Your task to perform on an android device: Clear the cart on costco. Search for razer blackwidow on costco, select the first entry, and add it to the cart. Image 0: 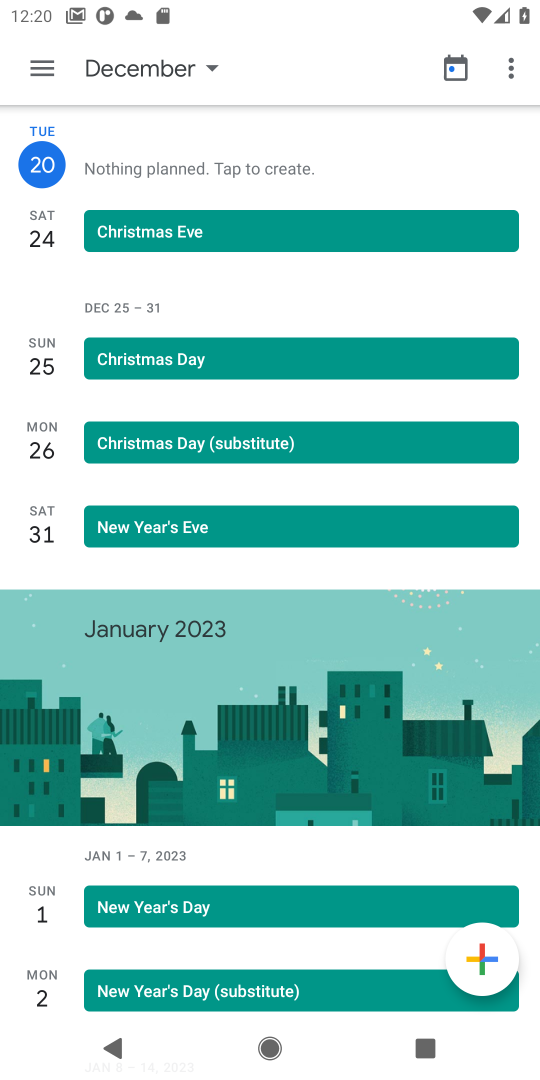
Step 0: press home button
Your task to perform on an android device: Clear the cart on costco. Search for razer blackwidow on costco, select the first entry, and add it to the cart. Image 1: 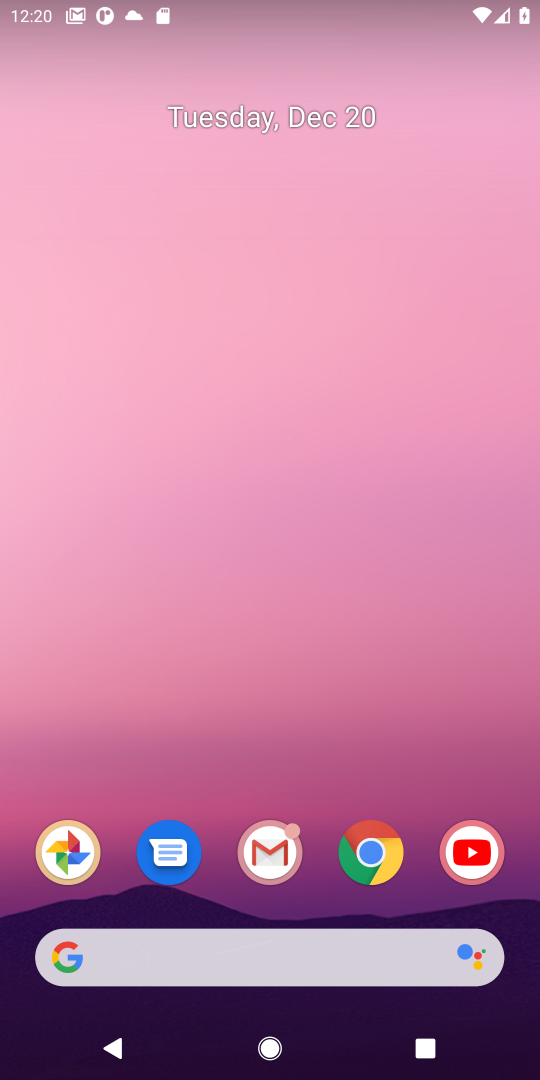
Step 1: click (378, 862)
Your task to perform on an android device: Clear the cart on costco. Search for razer blackwidow on costco, select the first entry, and add it to the cart. Image 2: 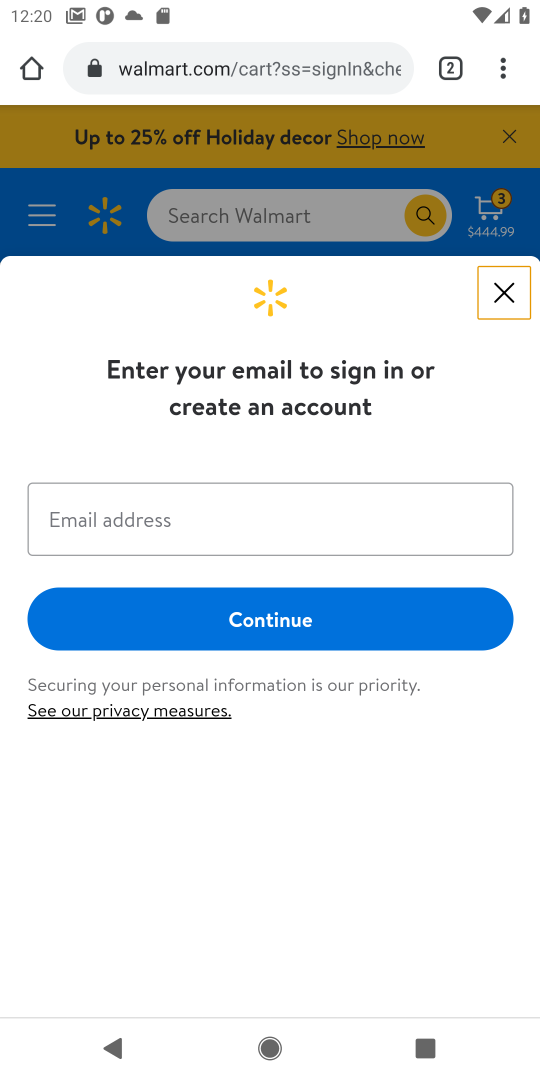
Step 2: click (238, 79)
Your task to perform on an android device: Clear the cart on costco. Search for razer blackwidow on costco, select the first entry, and add it to the cart. Image 3: 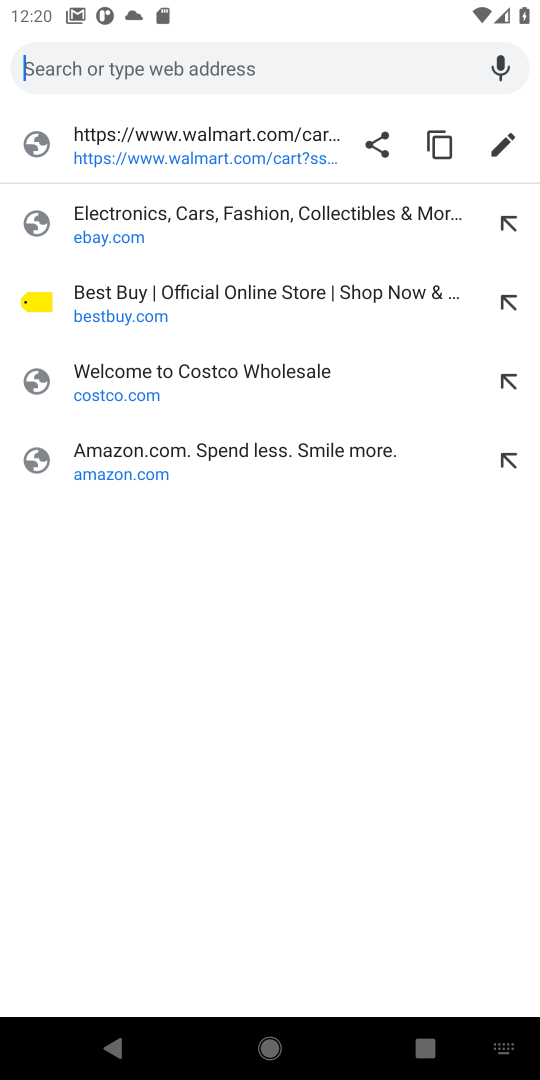
Step 3: click (127, 384)
Your task to perform on an android device: Clear the cart on costco. Search for razer blackwidow on costco, select the first entry, and add it to the cart. Image 4: 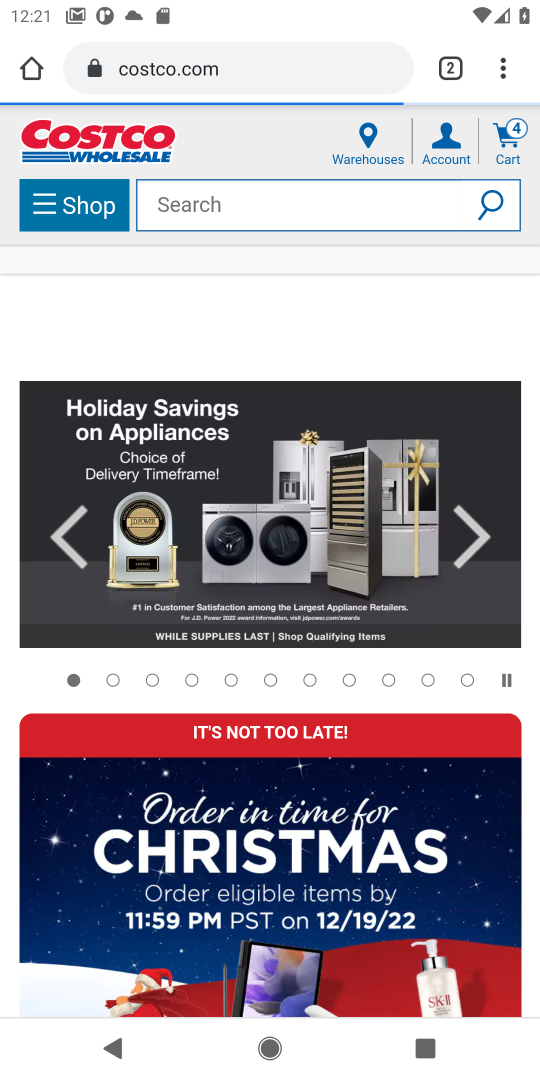
Step 4: click (511, 146)
Your task to perform on an android device: Clear the cart on costco. Search for razer blackwidow on costco, select the first entry, and add it to the cart. Image 5: 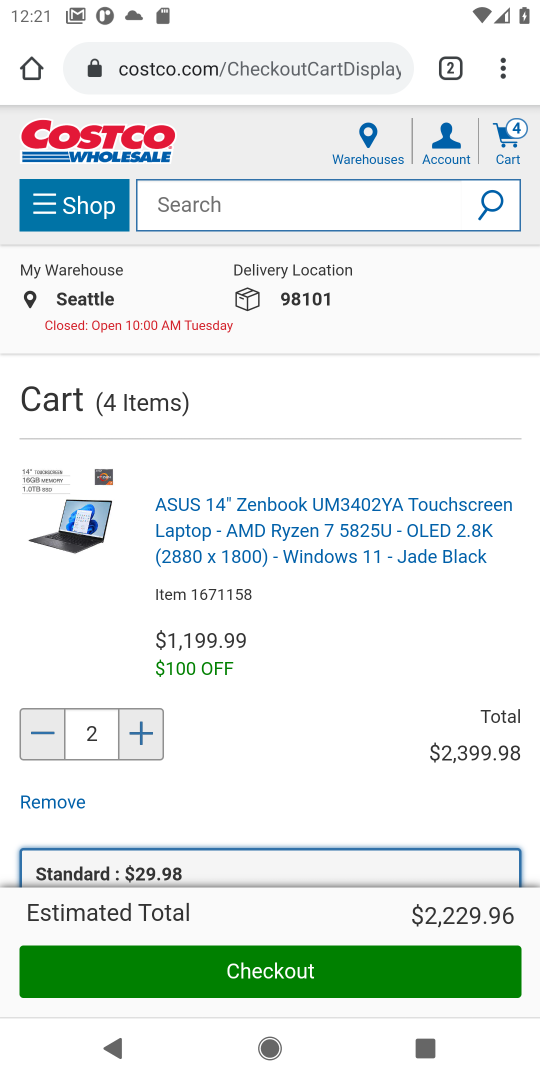
Step 5: drag from (233, 742) to (255, 502)
Your task to perform on an android device: Clear the cart on costco. Search for razer blackwidow on costco, select the first entry, and add it to the cart. Image 6: 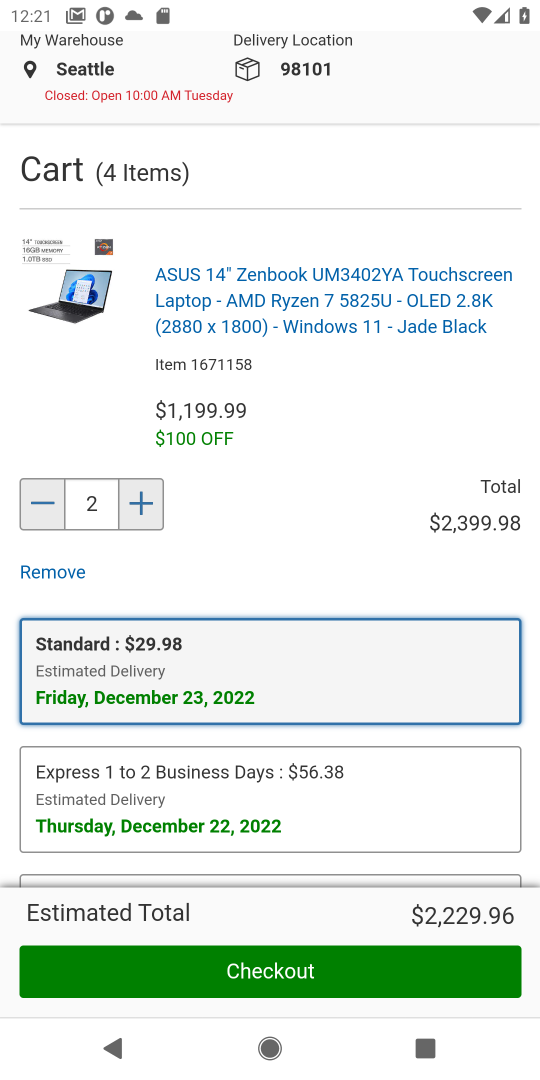
Step 6: drag from (319, 697) to (334, 448)
Your task to perform on an android device: Clear the cart on costco. Search for razer blackwidow on costco, select the first entry, and add it to the cart. Image 7: 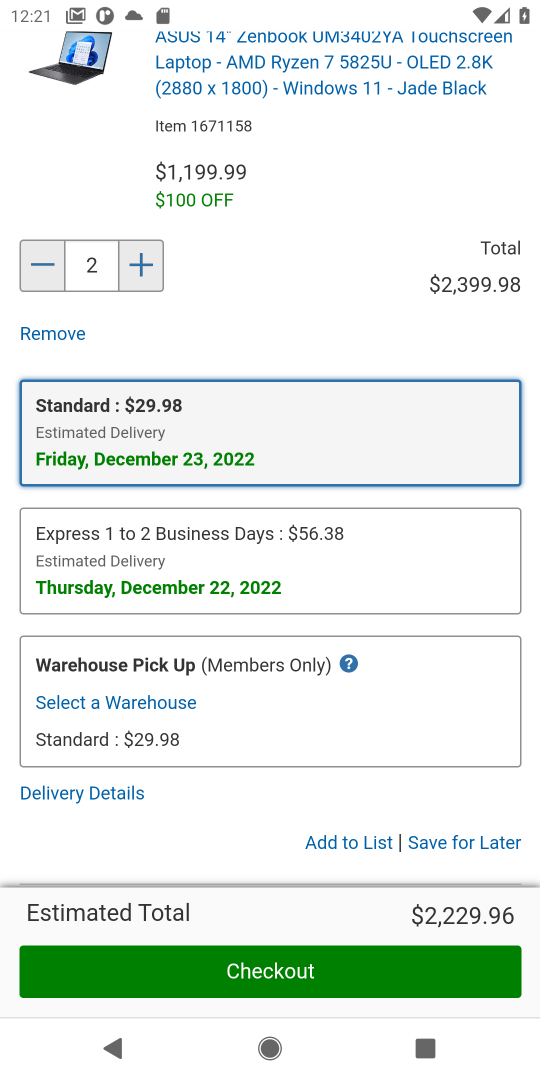
Step 7: click (456, 846)
Your task to perform on an android device: Clear the cart on costco. Search for razer blackwidow on costco, select the first entry, and add it to the cart. Image 8: 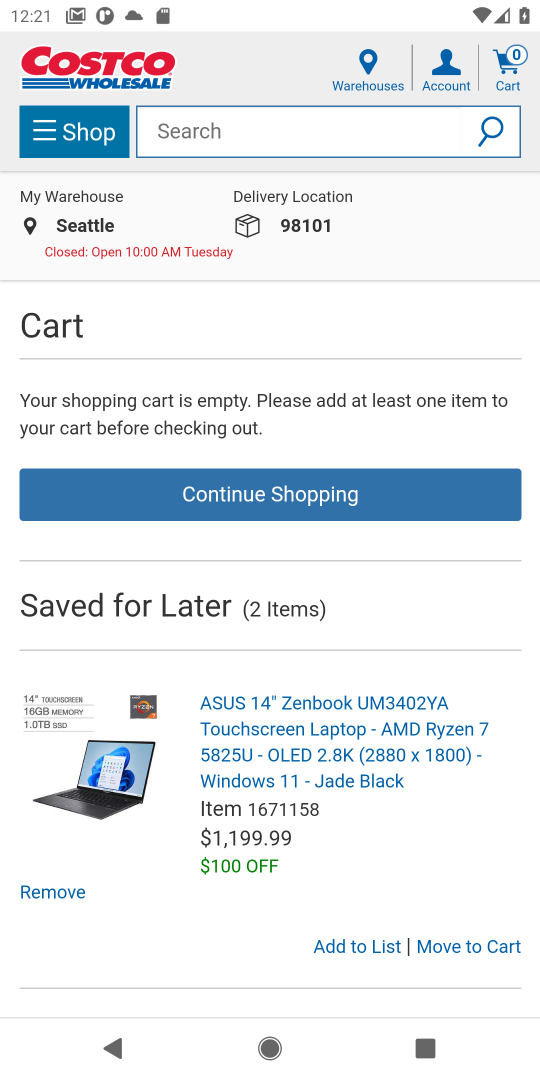
Step 8: click (199, 136)
Your task to perform on an android device: Clear the cart on costco. Search for razer blackwidow on costco, select the first entry, and add it to the cart. Image 9: 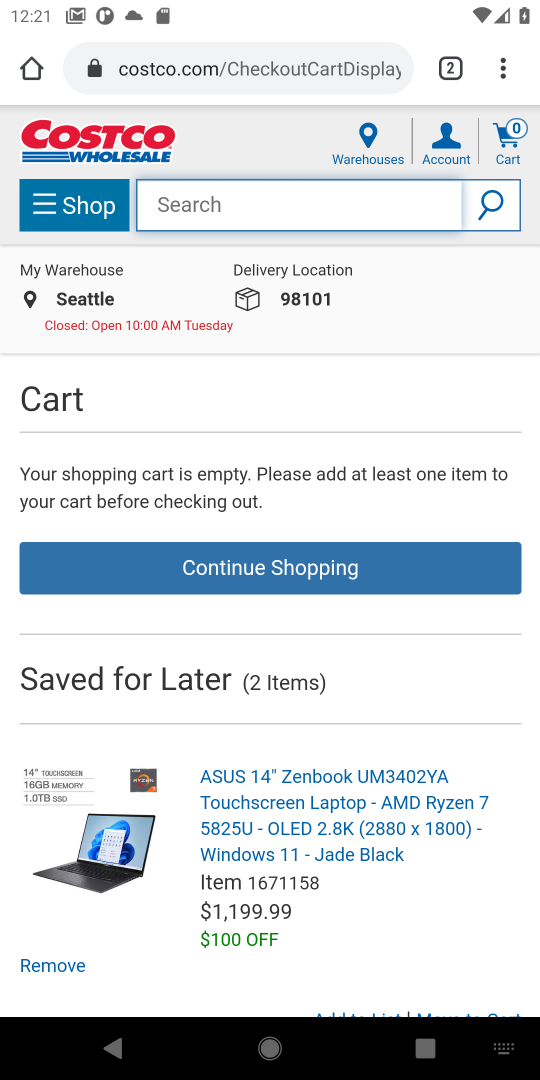
Step 9: type "razer blackwidow"
Your task to perform on an android device: Clear the cart on costco. Search for razer blackwidow on costco, select the first entry, and add it to the cart. Image 10: 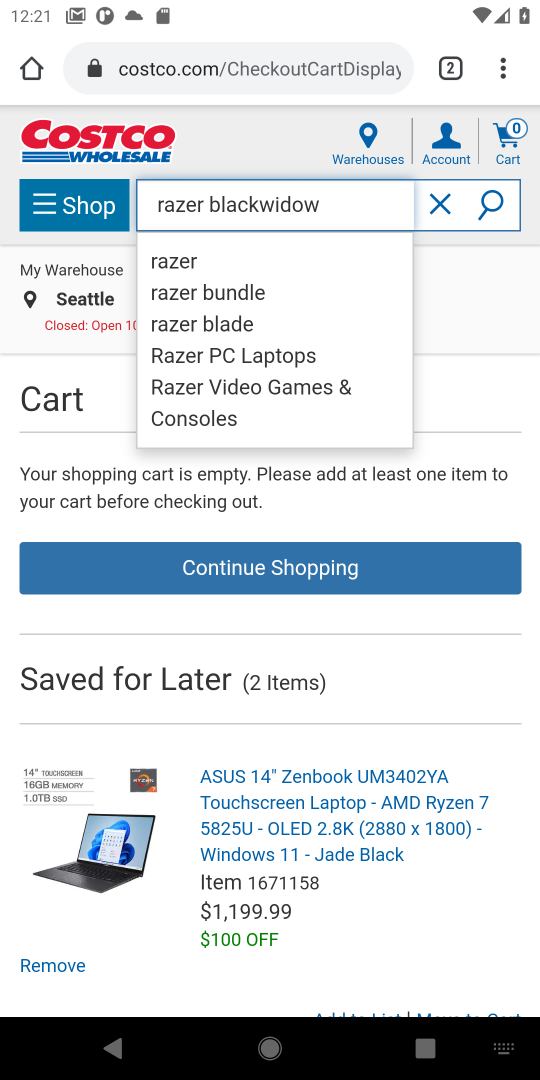
Step 10: click (485, 211)
Your task to perform on an android device: Clear the cart on costco. Search for razer blackwidow on costco, select the first entry, and add it to the cart. Image 11: 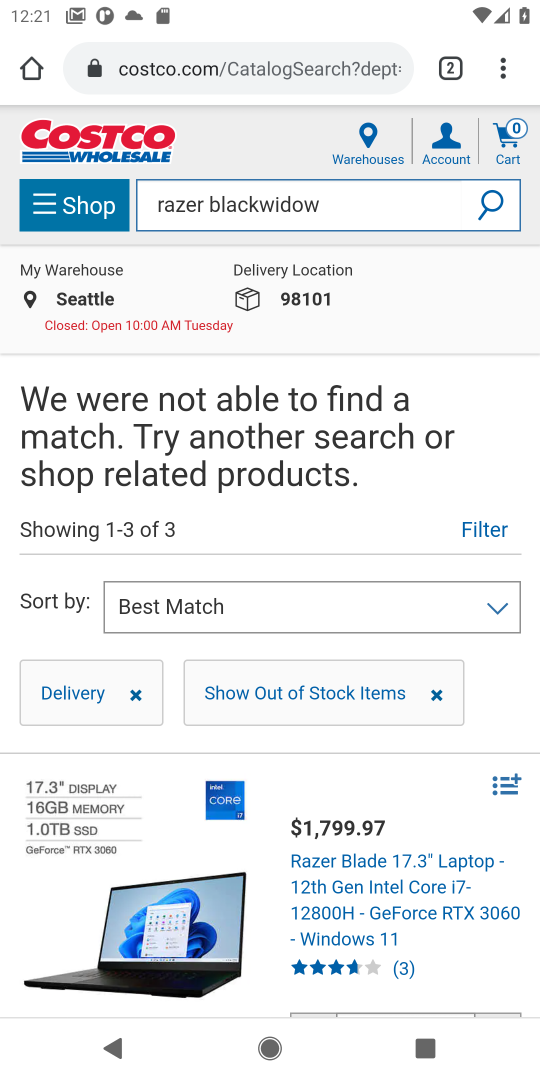
Step 11: task complete